Your task to perform on an android device: Go to Wikipedia Image 0: 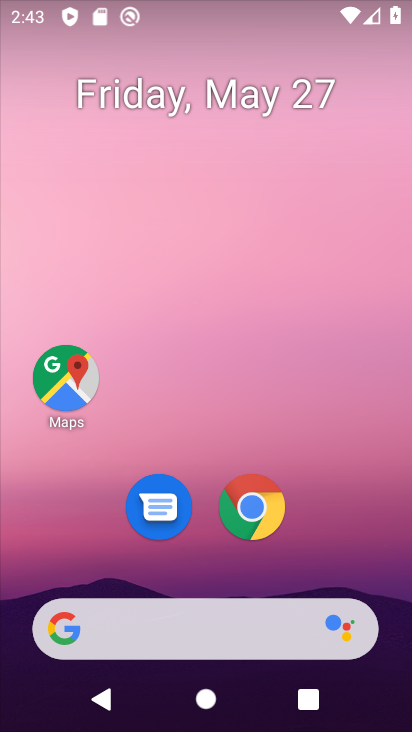
Step 0: drag from (345, 523) to (302, 123)
Your task to perform on an android device: Go to Wikipedia Image 1: 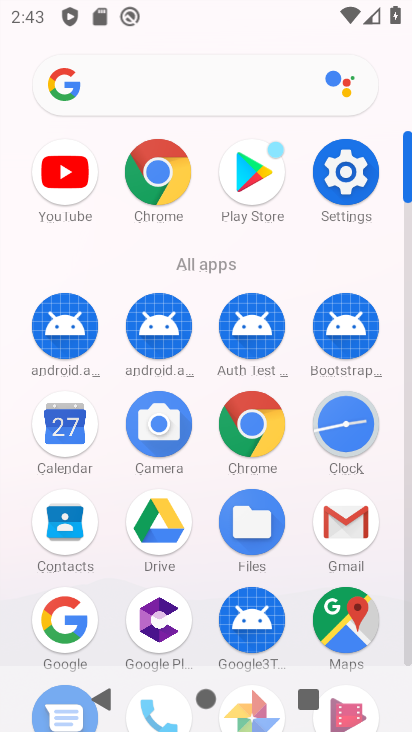
Step 1: click (252, 402)
Your task to perform on an android device: Go to Wikipedia Image 2: 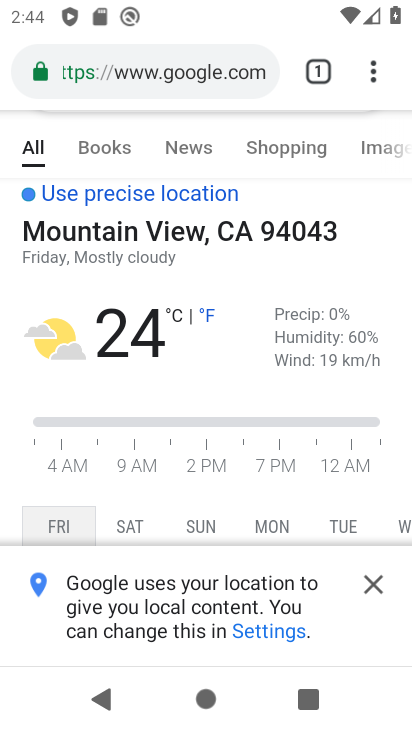
Step 2: task complete